Your task to perform on an android device: Open wifi settings Image 0: 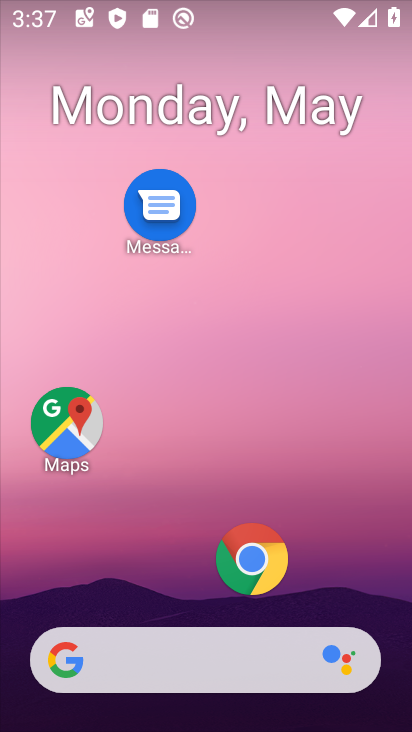
Step 0: drag from (126, 584) to (211, 176)
Your task to perform on an android device: Open wifi settings Image 1: 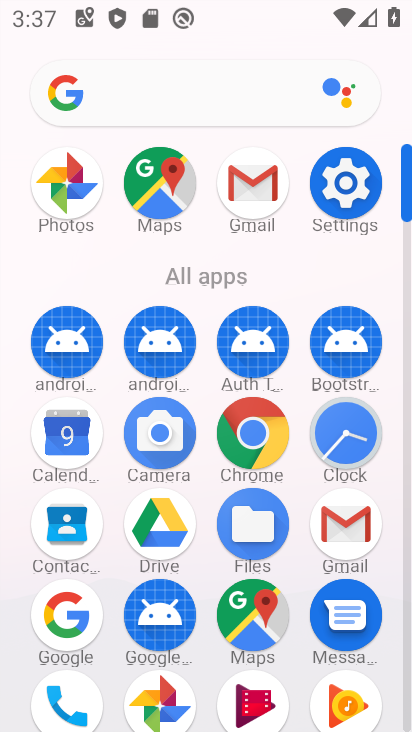
Step 1: click (347, 183)
Your task to perform on an android device: Open wifi settings Image 2: 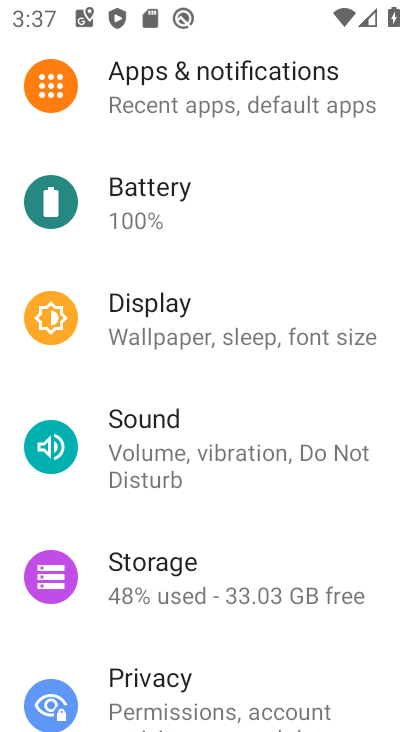
Step 2: drag from (213, 207) to (212, 607)
Your task to perform on an android device: Open wifi settings Image 3: 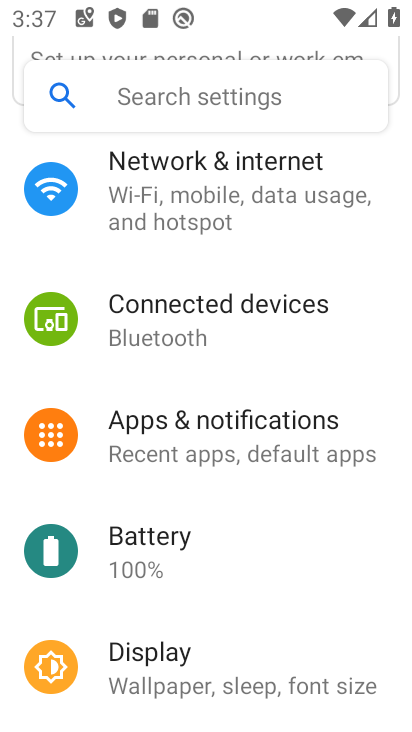
Step 3: drag from (281, 278) to (301, 500)
Your task to perform on an android device: Open wifi settings Image 4: 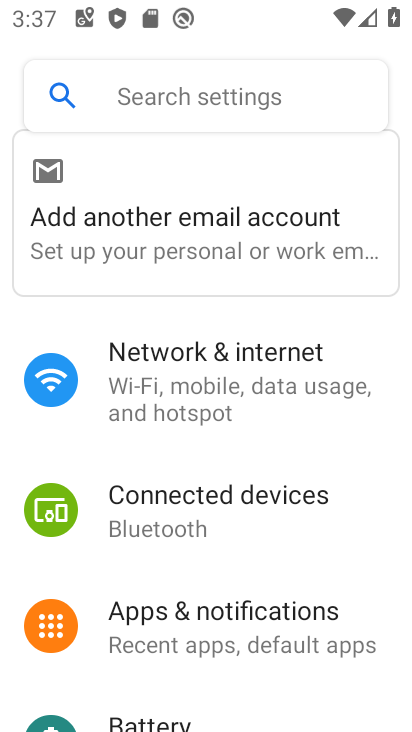
Step 4: click (195, 308)
Your task to perform on an android device: Open wifi settings Image 5: 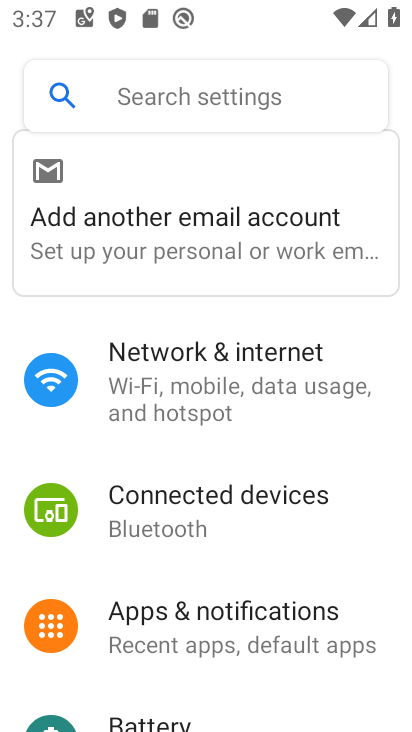
Step 5: click (194, 371)
Your task to perform on an android device: Open wifi settings Image 6: 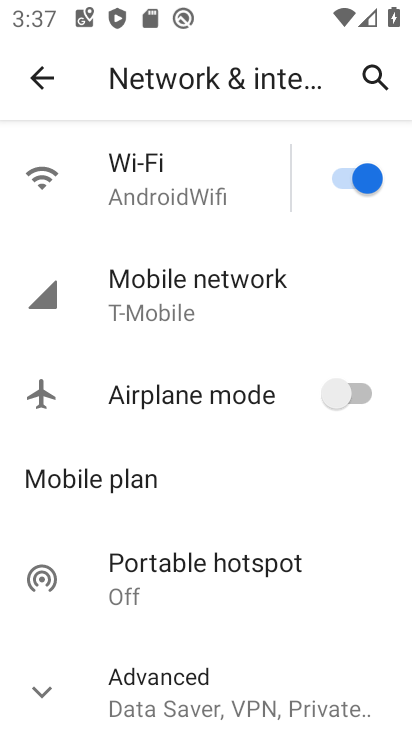
Step 6: task complete